Your task to perform on an android device: What's the weather today? Image 0: 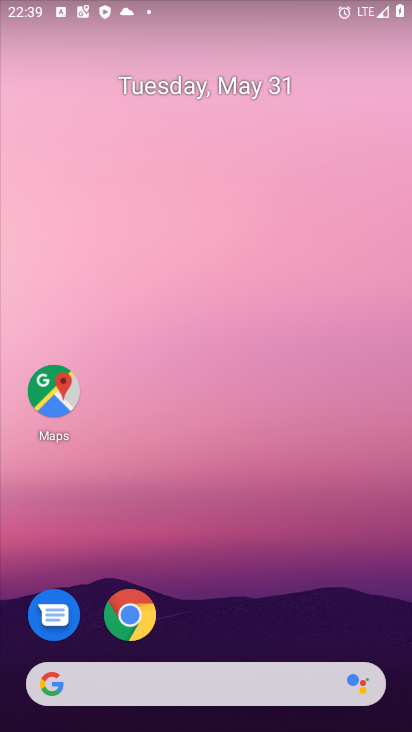
Step 0: drag from (18, 181) to (394, 229)
Your task to perform on an android device: What's the weather today? Image 1: 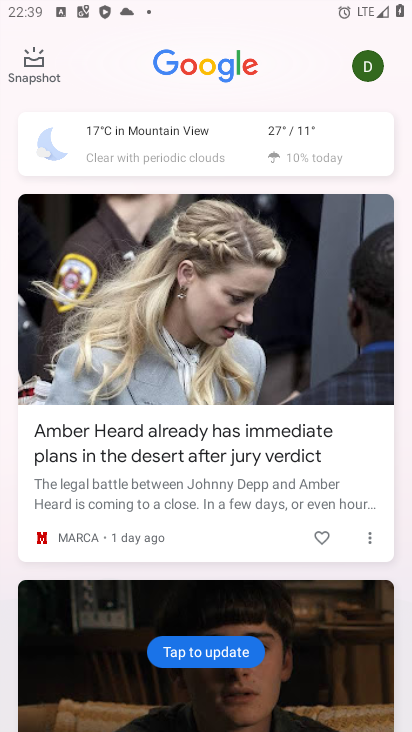
Step 1: click (295, 137)
Your task to perform on an android device: What's the weather today? Image 2: 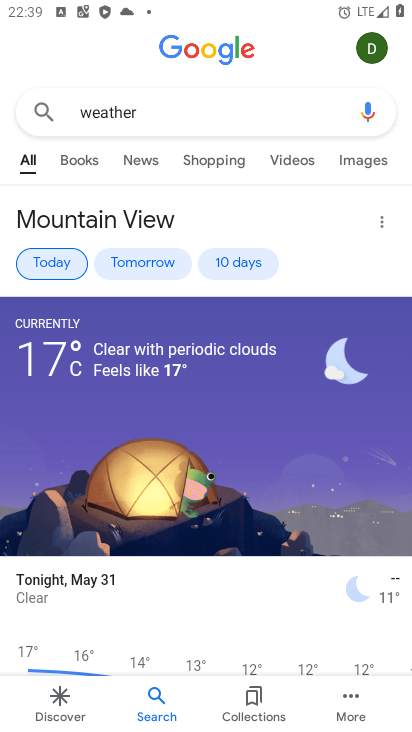
Step 2: task complete